Your task to perform on an android device: turn on notifications settings in the gmail app Image 0: 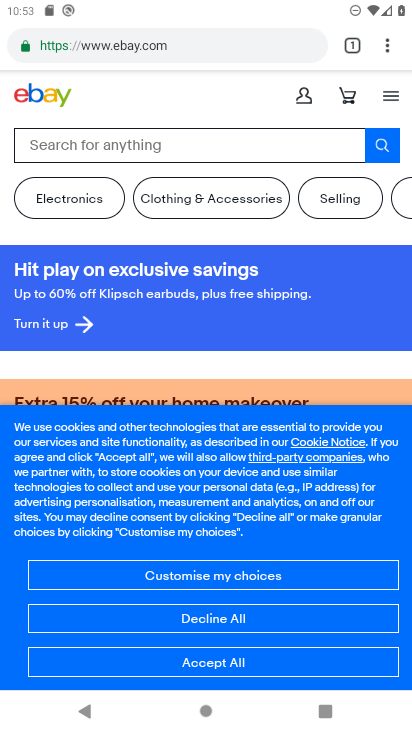
Step 0: press home button
Your task to perform on an android device: turn on notifications settings in the gmail app Image 1: 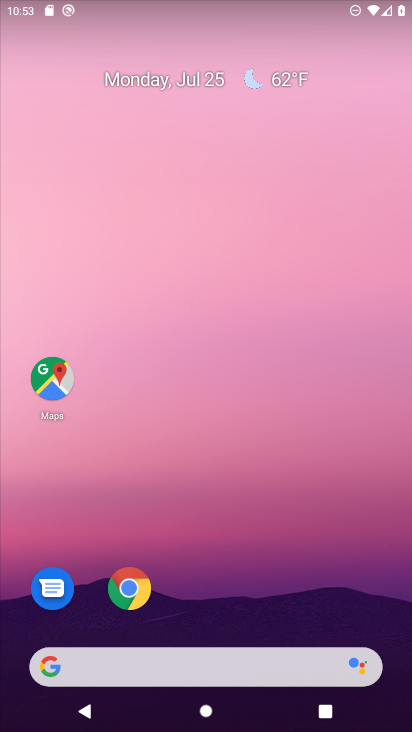
Step 1: drag from (46, 439) to (175, 72)
Your task to perform on an android device: turn on notifications settings in the gmail app Image 2: 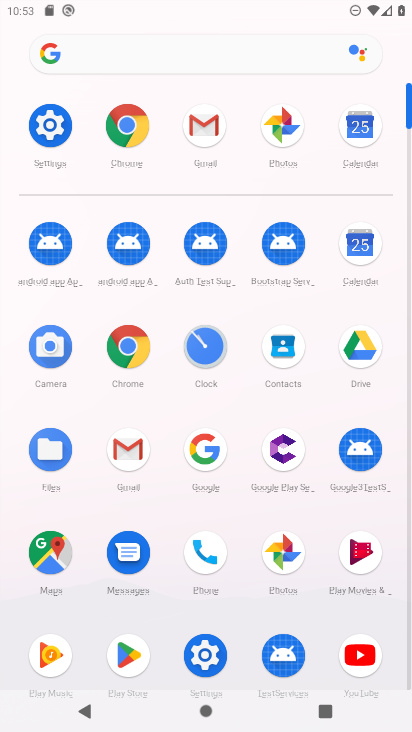
Step 2: click (200, 124)
Your task to perform on an android device: turn on notifications settings in the gmail app Image 3: 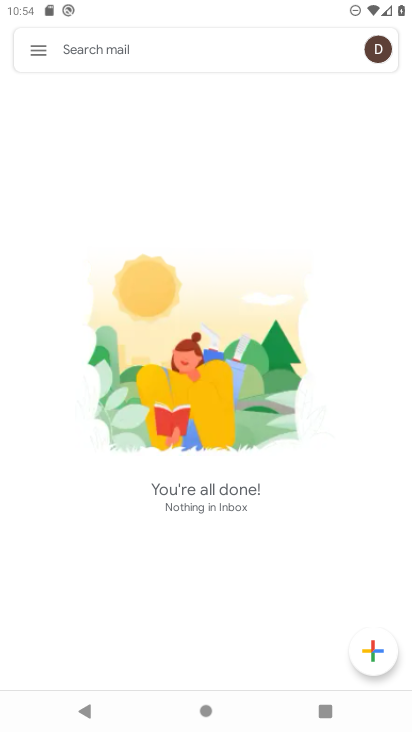
Step 3: click (39, 51)
Your task to perform on an android device: turn on notifications settings in the gmail app Image 4: 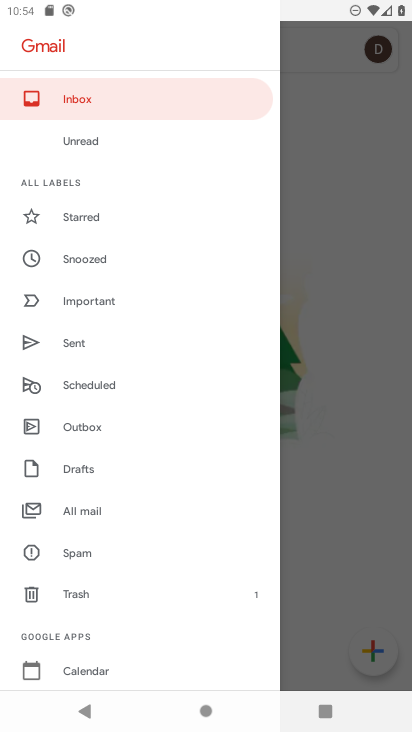
Step 4: drag from (26, 693) to (129, 142)
Your task to perform on an android device: turn on notifications settings in the gmail app Image 5: 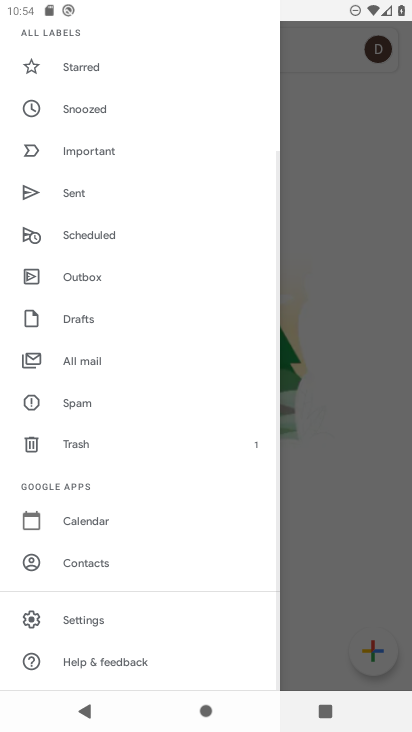
Step 5: click (47, 623)
Your task to perform on an android device: turn on notifications settings in the gmail app Image 6: 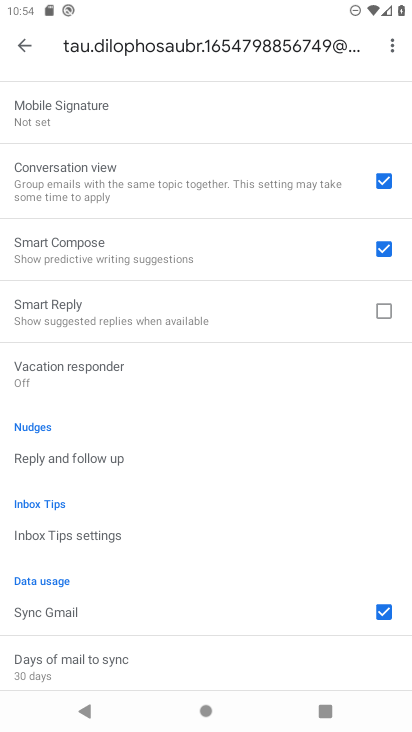
Step 6: drag from (13, 635) to (191, 217)
Your task to perform on an android device: turn on notifications settings in the gmail app Image 7: 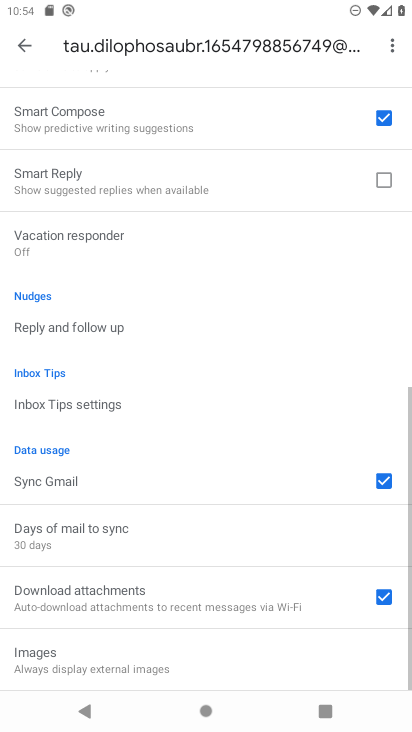
Step 7: drag from (244, 193) to (177, 673)
Your task to perform on an android device: turn on notifications settings in the gmail app Image 8: 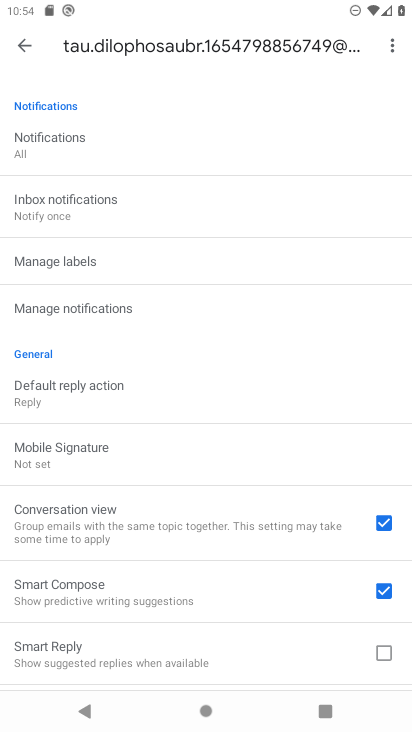
Step 8: click (65, 309)
Your task to perform on an android device: turn on notifications settings in the gmail app Image 9: 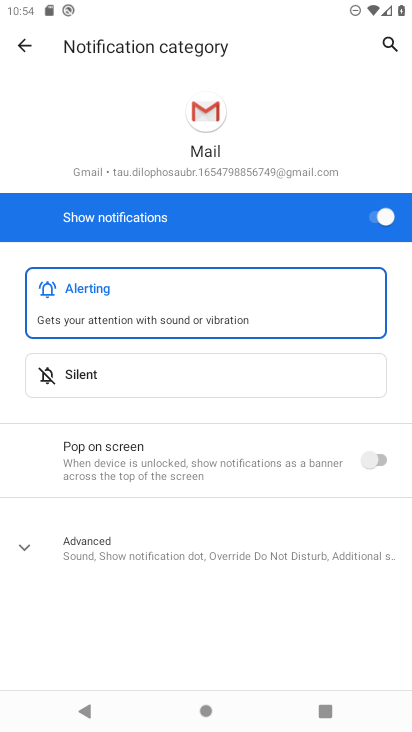
Step 9: click (390, 217)
Your task to perform on an android device: turn on notifications settings in the gmail app Image 10: 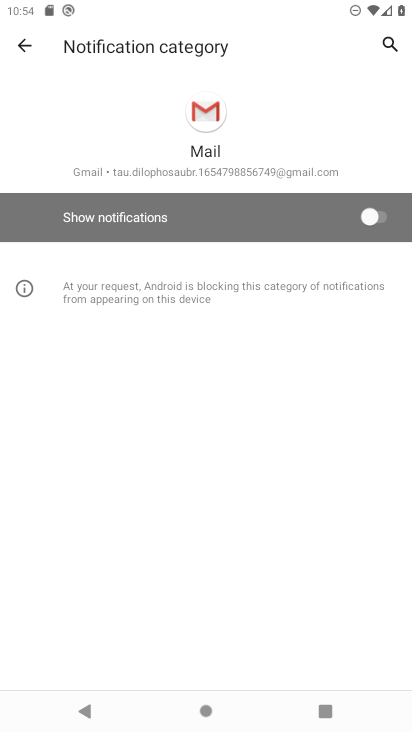
Step 10: task complete